Your task to perform on an android device: Open Google Maps Image 0: 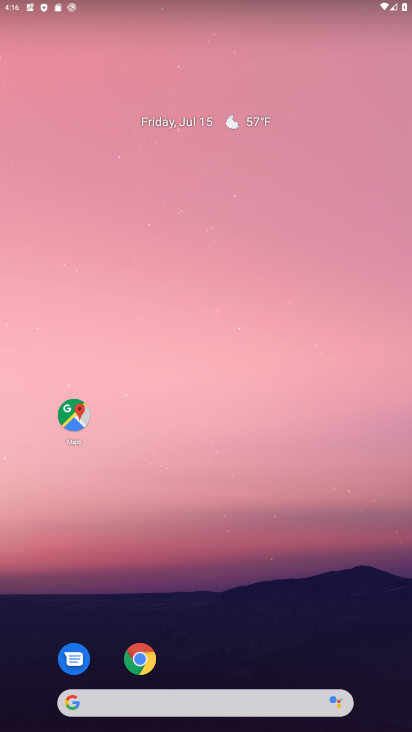
Step 0: drag from (285, 652) to (161, 261)
Your task to perform on an android device: Open Google Maps Image 1: 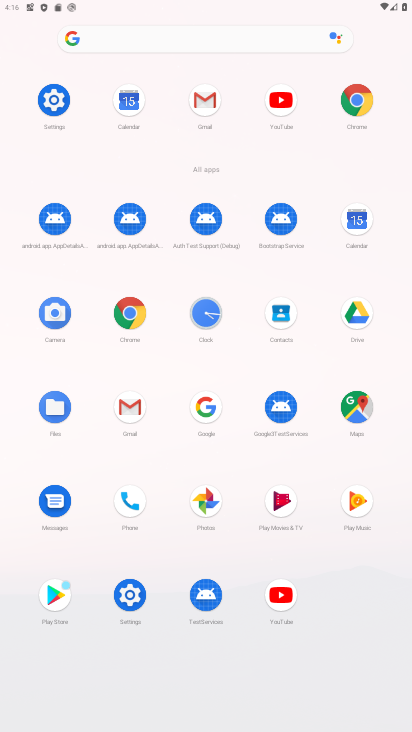
Step 1: click (352, 410)
Your task to perform on an android device: Open Google Maps Image 2: 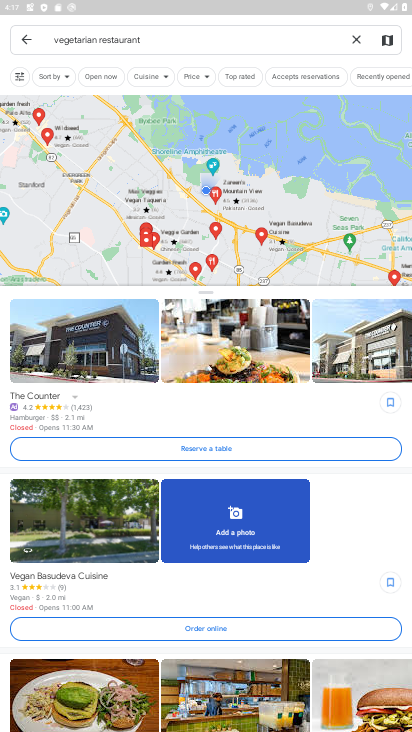
Step 2: task complete